Your task to perform on an android device: Go to settings Image 0: 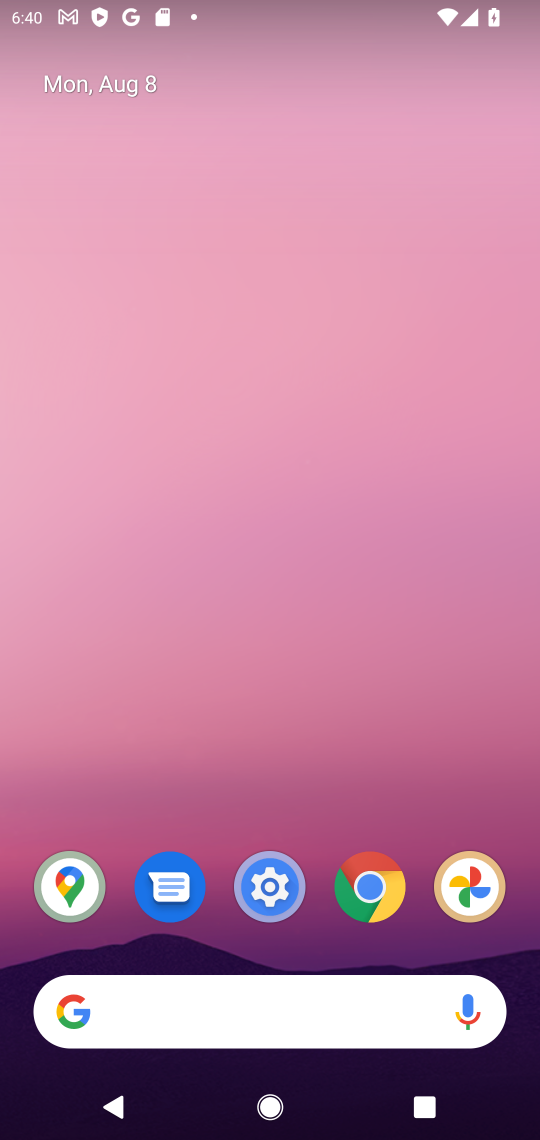
Step 0: click (282, 878)
Your task to perform on an android device: Go to settings Image 1: 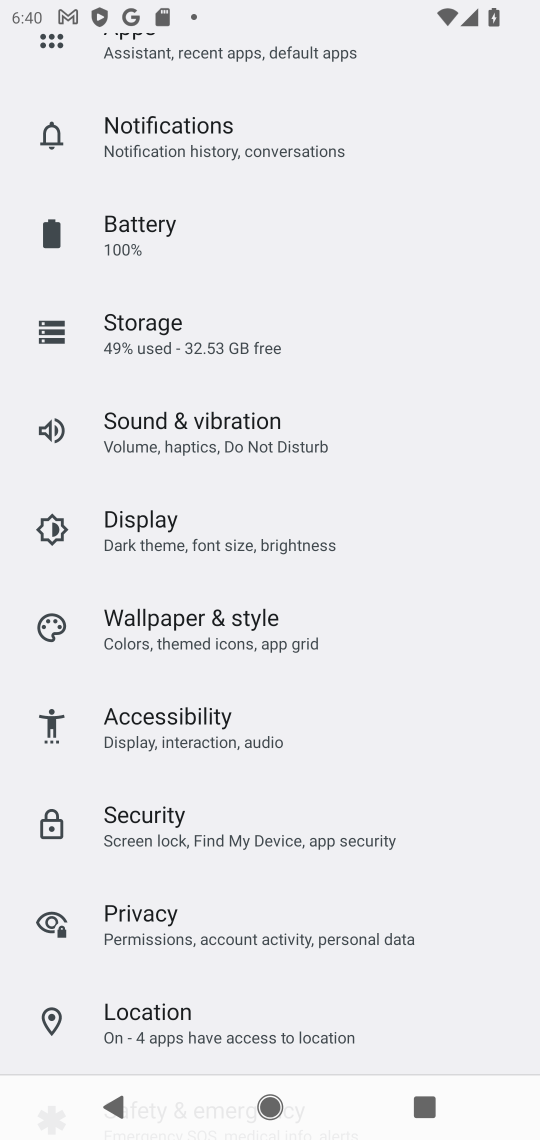
Step 1: task complete